Your task to perform on an android device: uninstall "VLC for Android" Image 0: 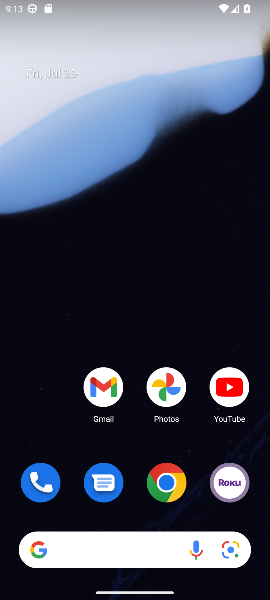
Step 0: drag from (131, 597) to (141, 297)
Your task to perform on an android device: uninstall "VLC for Android" Image 1: 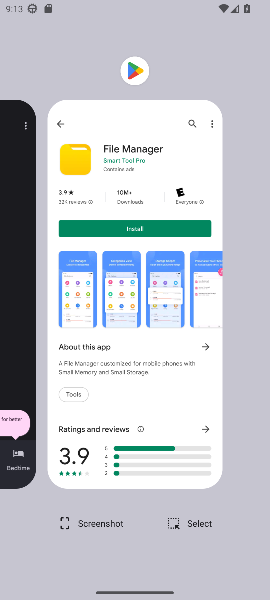
Step 1: click (168, 302)
Your task to perform on an android device: uninstall "VLC for Android" Image 2: 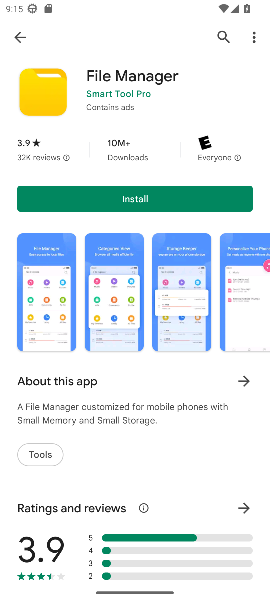
Step 2: click (222, 31)
Your task to perform on an android device: uninstall "VLC for Android" Image 3: 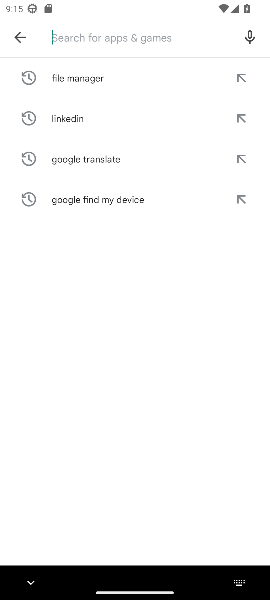
Step 3: type "VLC for Android"
Your task to perform on an android device: uninstall "VLC for Android" Image 4: 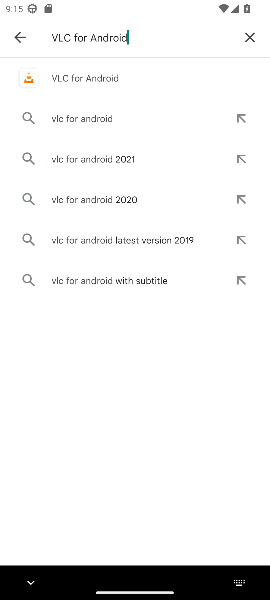
Step 4: click (92, 78)
Your task to perform on an android device: uninstall "VLC for Android" Image 5: 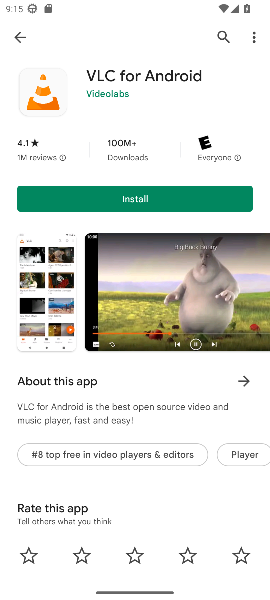
Step 5: task complete